Your task to perform on an android device: turn on notifications settings in the gmail app Image 0: 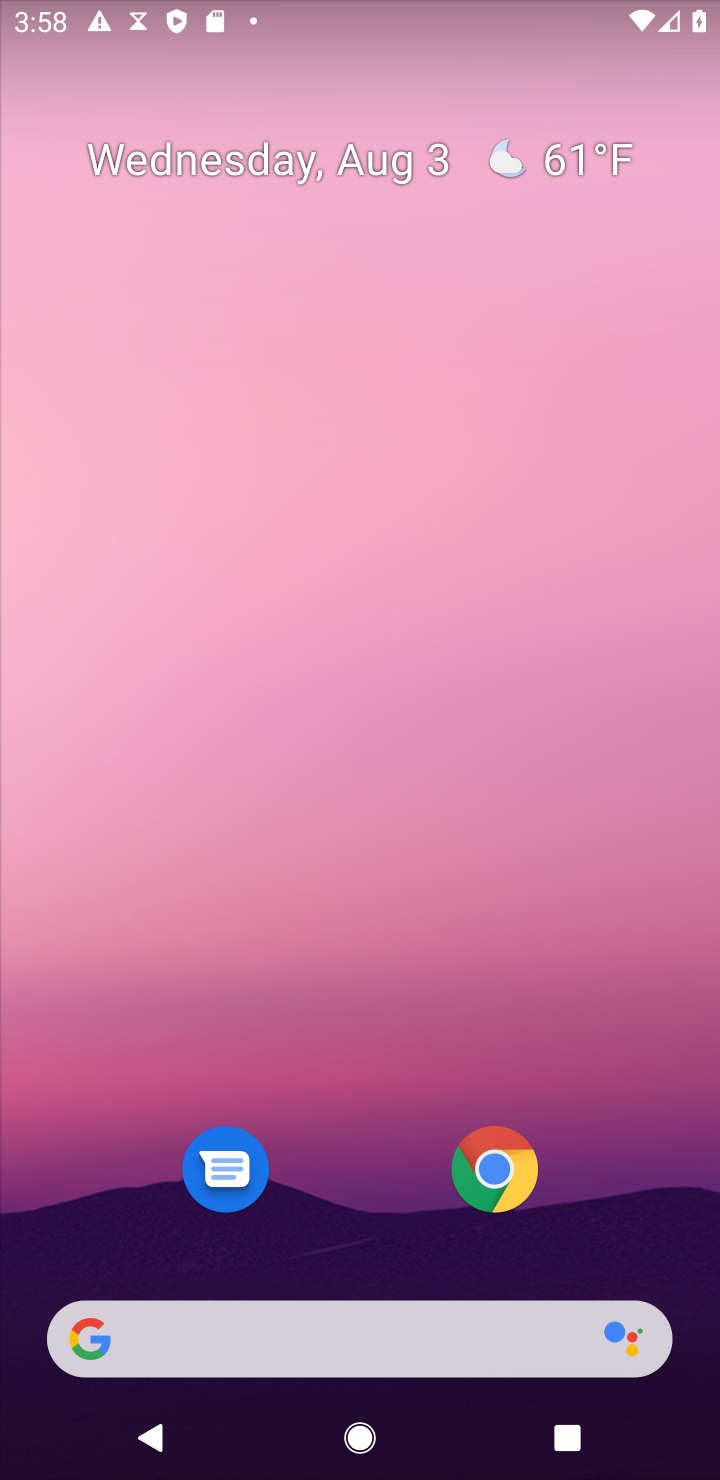
Step 0: drag from (370, 995) to (231, 7)
Your task to perform on an android device: turn on notifications settings in the gmail app Image 1: 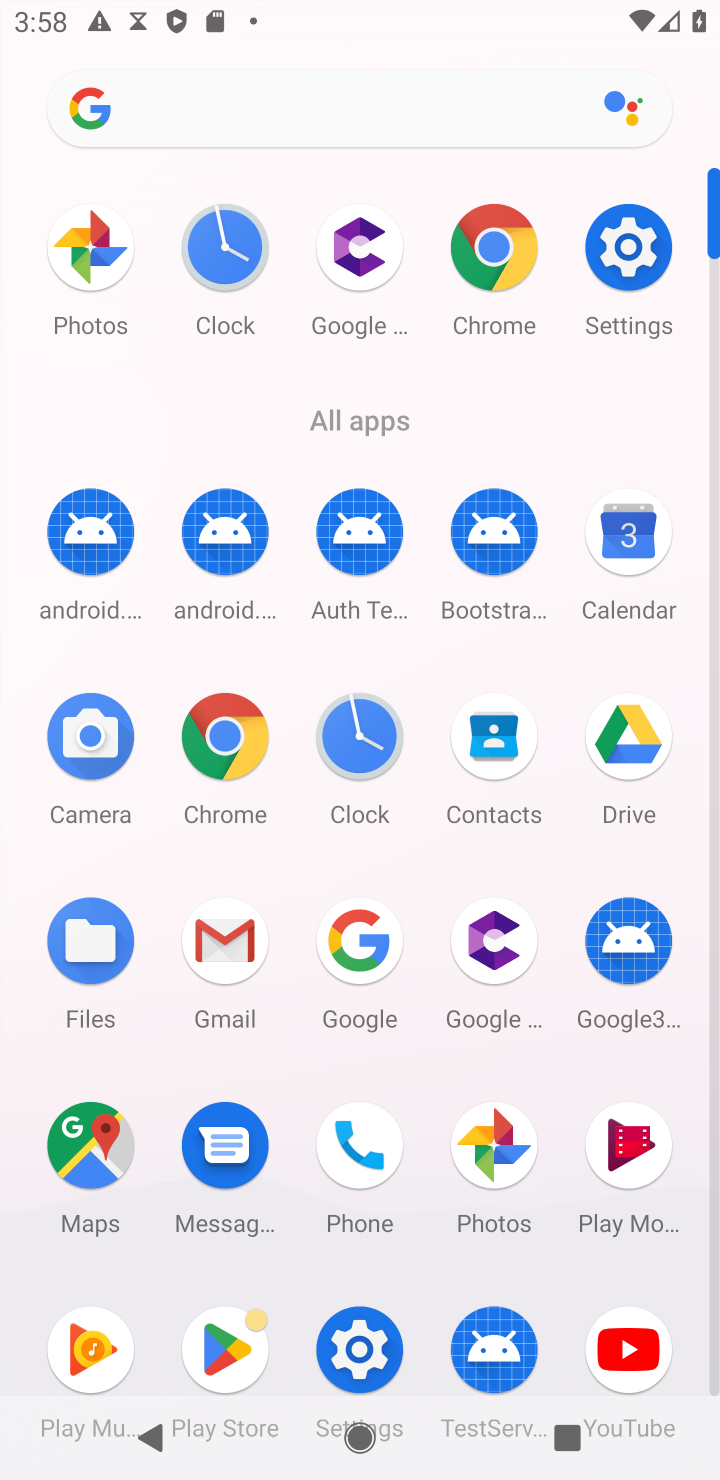
Step 1: click (231, 957)
Your task to perform on an android device: turn on notifications settings in the gmail app Image 2: 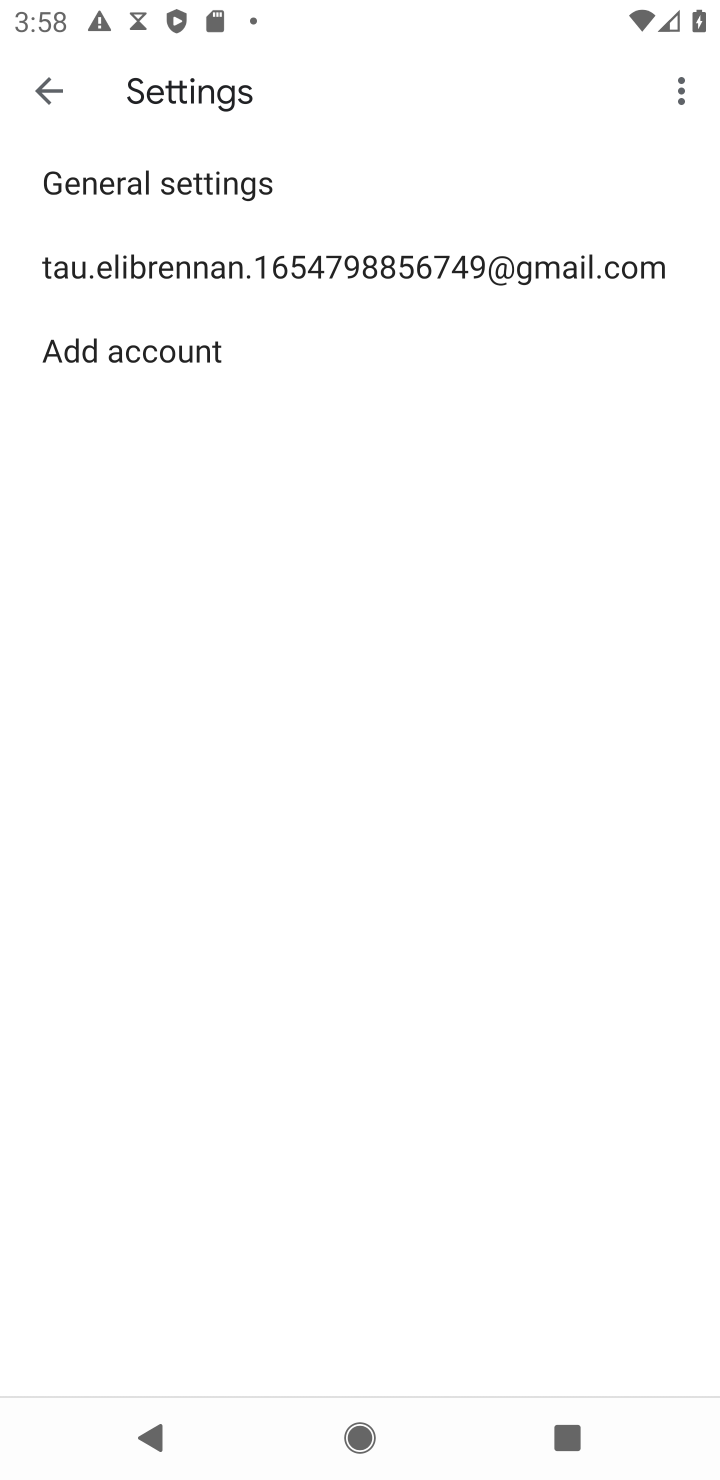
Step 2: click (152, 173)
Your task to perform on an android device: turn on notifications settings in the gmail app Image 3: 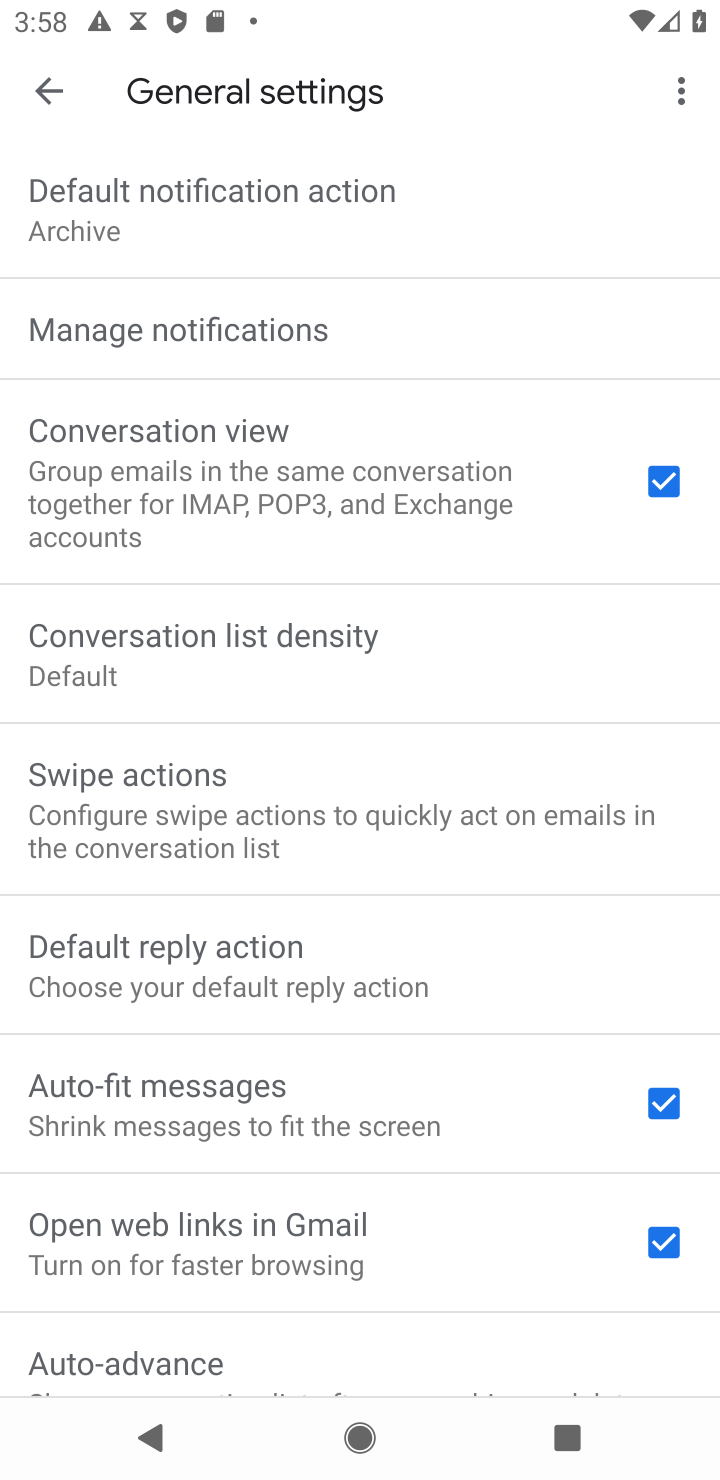
Step 3: click (264, 337)
Your task to perform on an android device: turn on notifications settings in the gmail app Image 4: 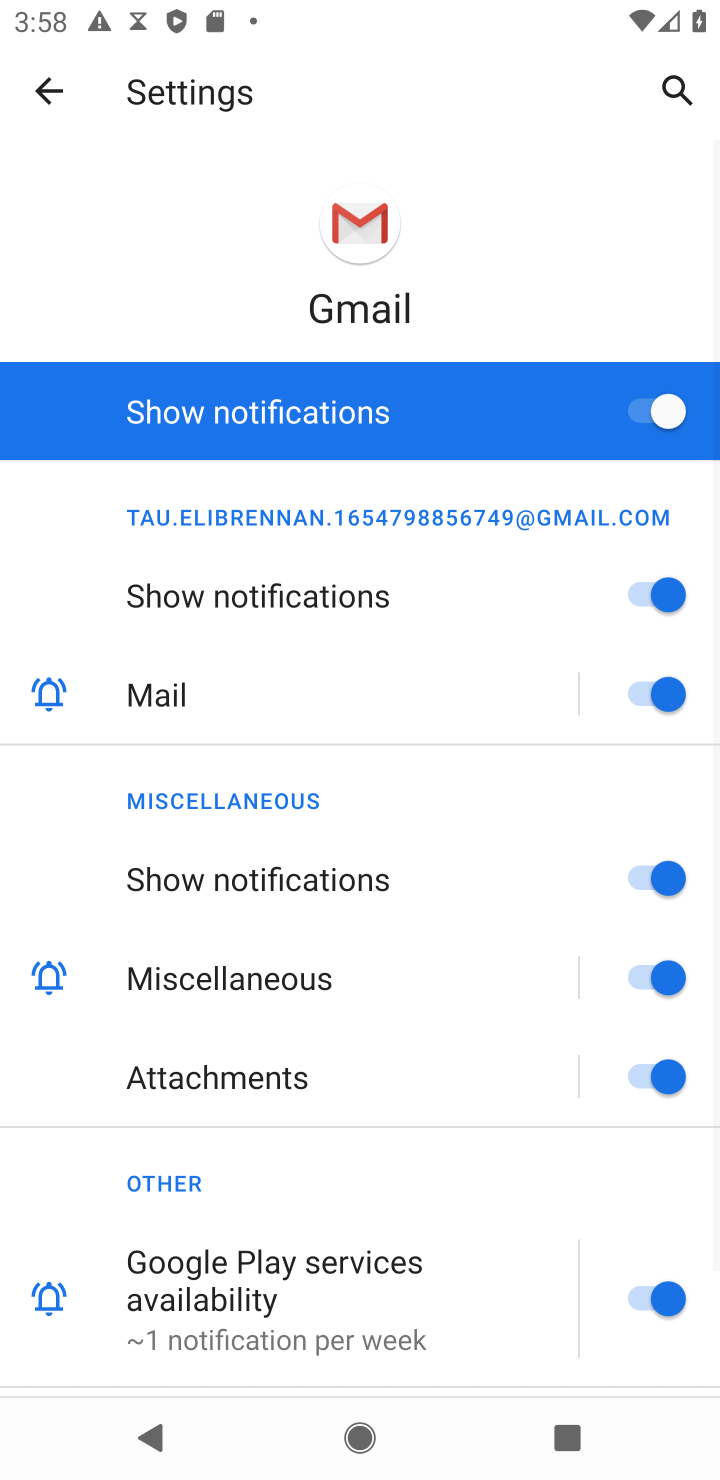
Step 4: click (266, 339)
Your task to perform on an android device: turn on notifications settings in the gmail app Image 5: 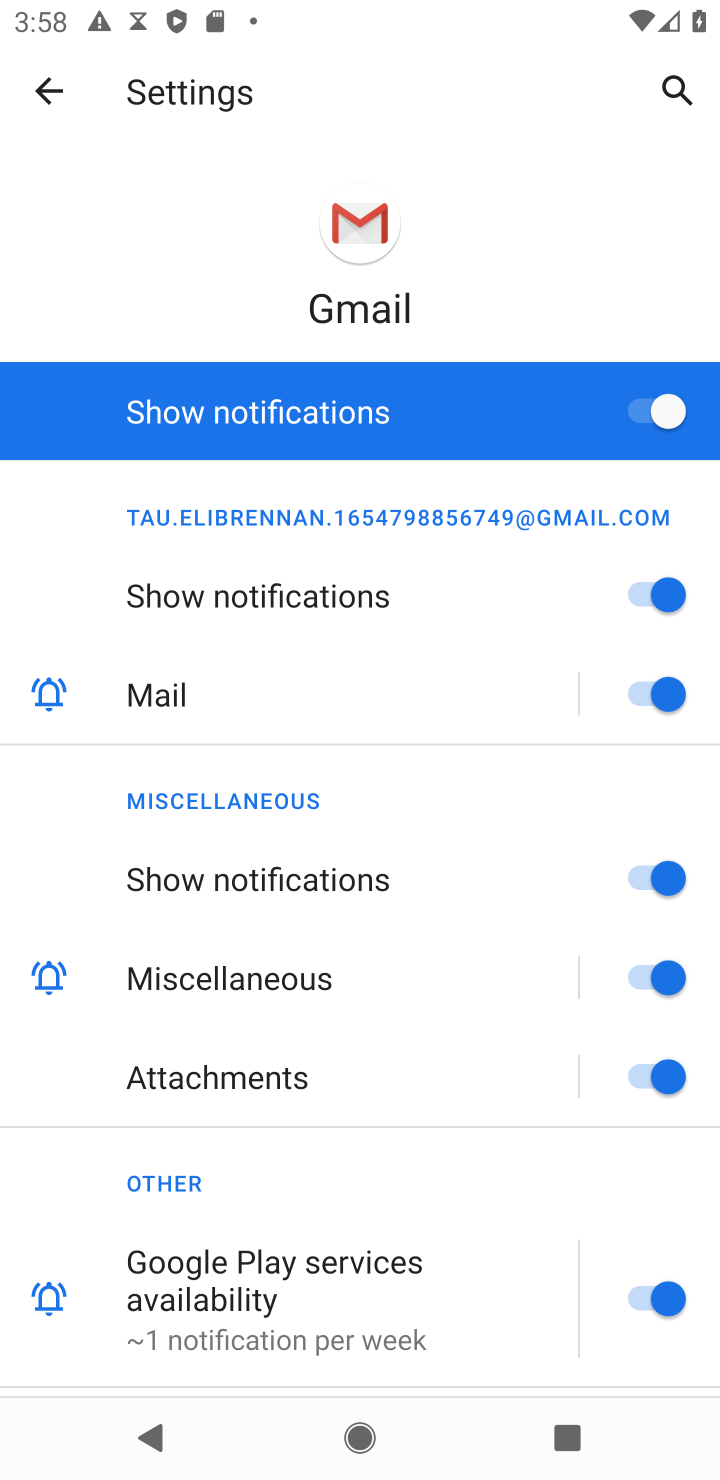
Step 5: task complete